Your task to perform on an android device: Search for Italian restaurants on Maps Image 0: 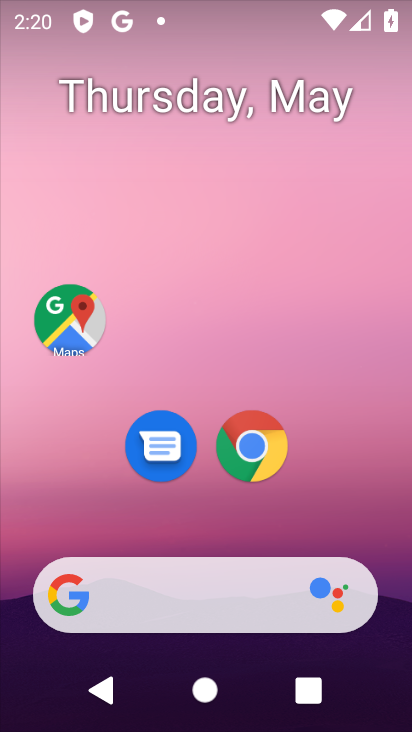
Step 0: click (71, 333)
Your task to perform on an android device: Search for Italian restaurants on Maps Image 1: 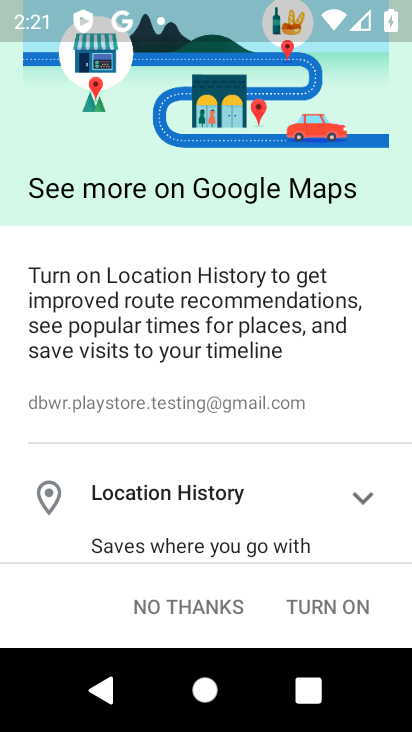
Step 1: click (199, 594)
Your task to perform on an android device: Search for Italian restaurants on Maps Image 2: 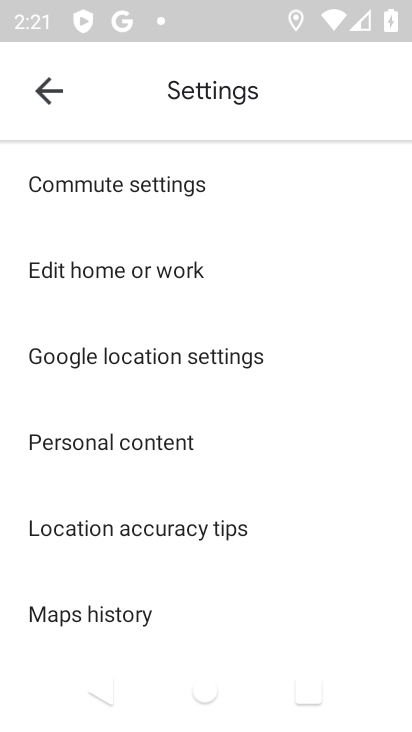
Step 2: click (37, 91)
Your task to perform on an android device: Search for Italian restaurants on Maps Image 3: 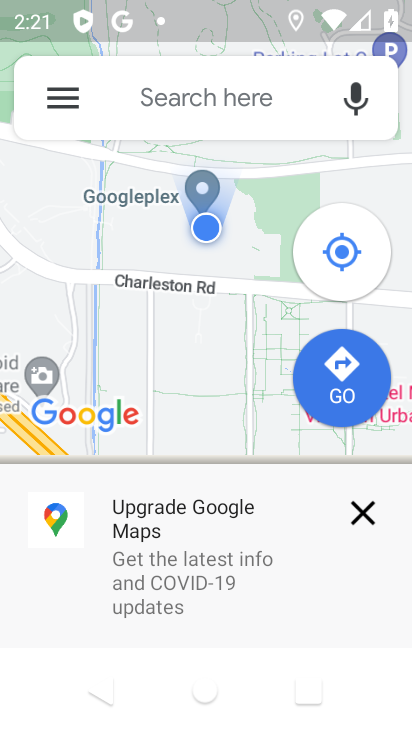
Step 3: click (191, 72)
Your task to perform on an android device: Search for Italian restaurants on Maps Image 4: 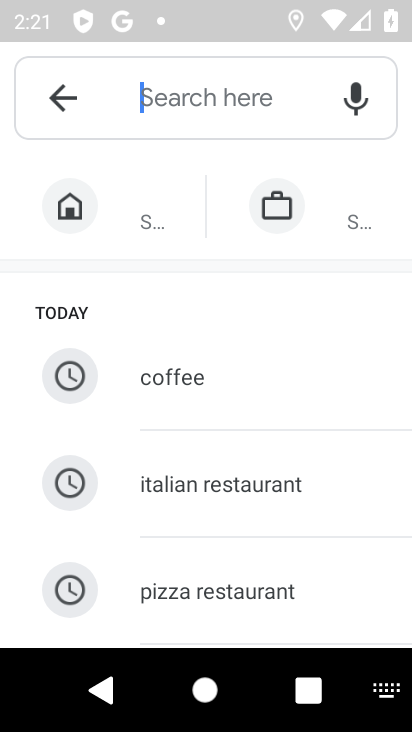
Step 4: type "italian restaurants"
Your task to perform on an android device: Search for Italian restaurants on Maps Image 5: 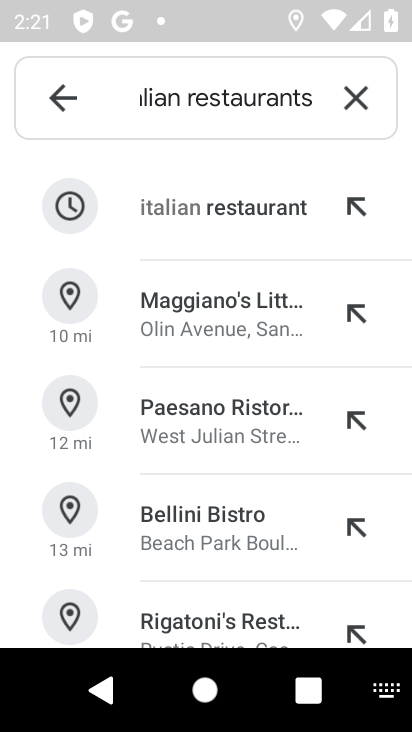
Step 5: click (247, 217)
Your task to perform on an android device: Search for Italian restaurants on Maps Image 6: 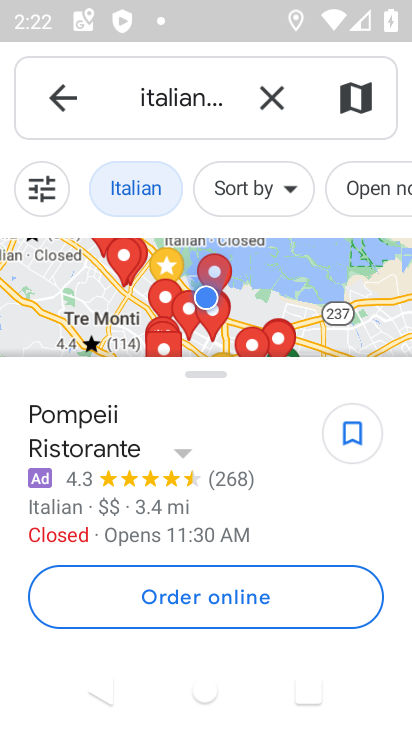
Step 6: task complete